Your task to perform on an android device: manage bookmarks in the chrome app Image 0: 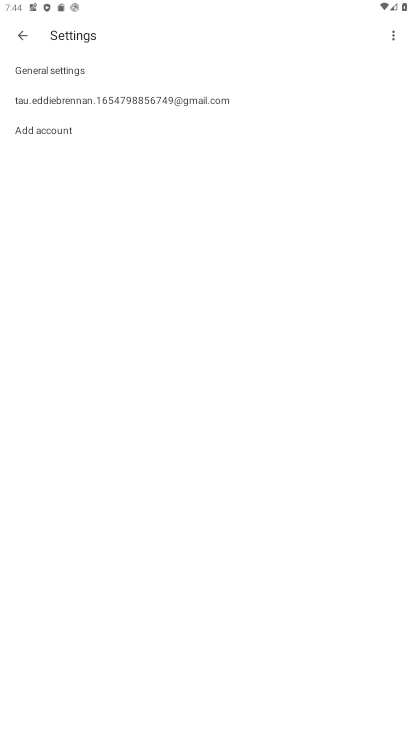
Step 0: press home button
Your task to perform on an android device: manage bookmarks in the chrome app Image 1: 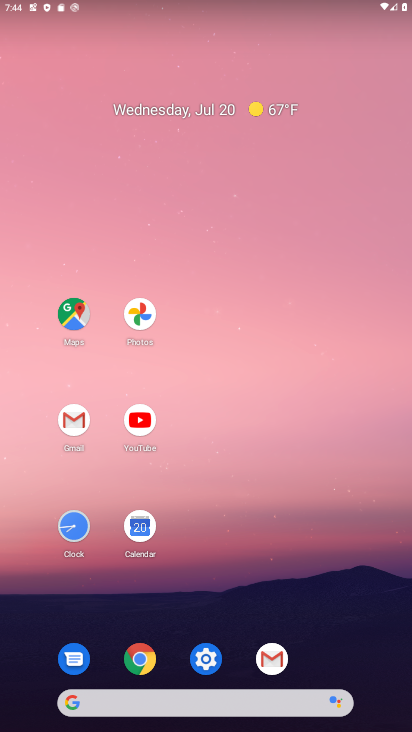
Step 1: click (137, 659)
Your task to perform on an android device: manage bookmarks in the chrome app Image 2: 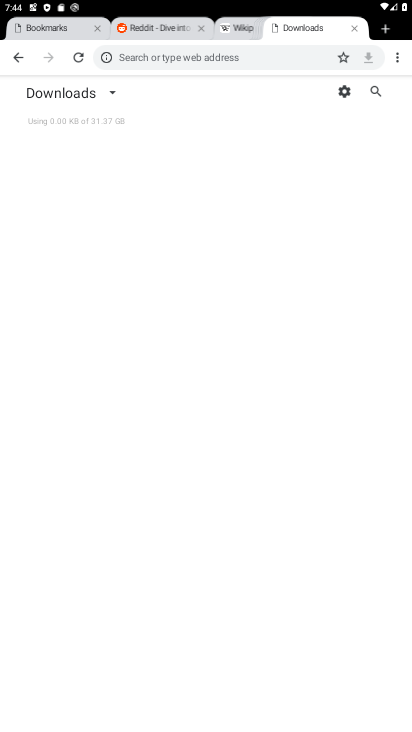
Step 2: click (397, 48)
Your task to perform on an android device: manage bookmarks in the chrome app Image 3: 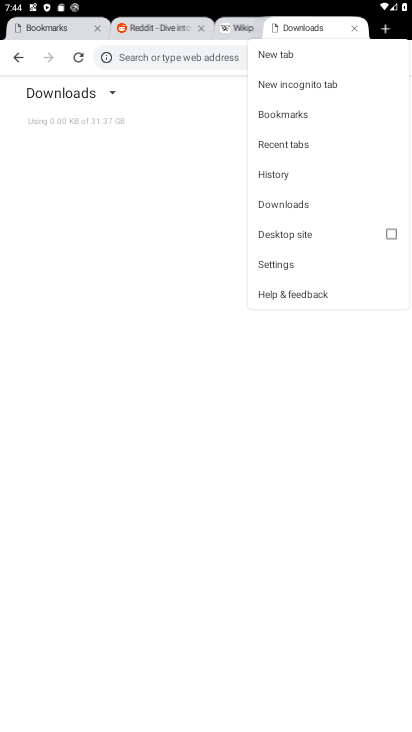
Step 3: click (285, 118)
Your task to perform on an android device: manage bookmarks in the chrome app Image 4: 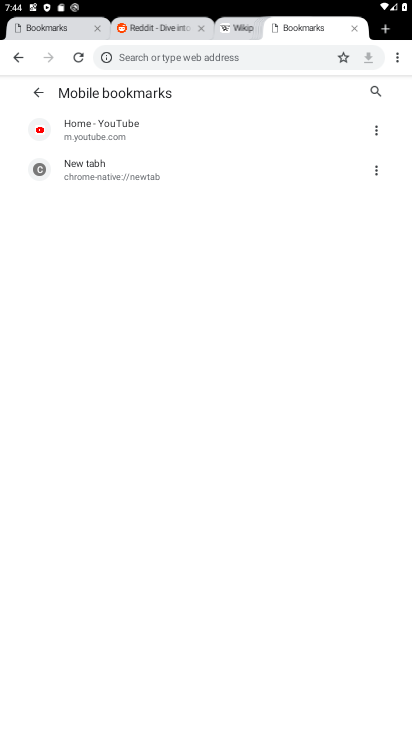
Step 4: click (371, 130)
Your task to perform on an android device: manage bookmarks in the chrome app Image 5: 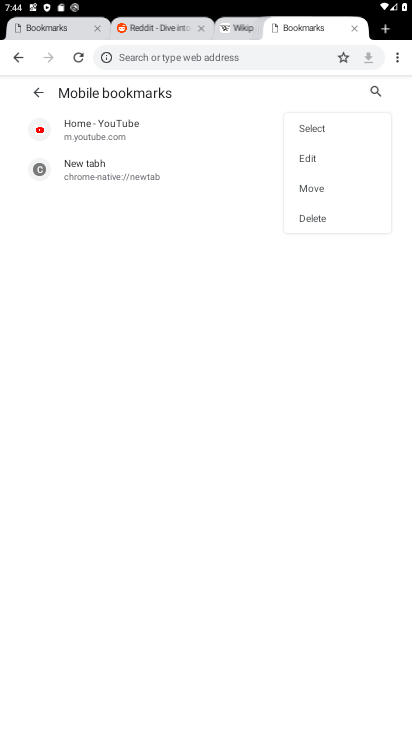
Step 5: click (318, 152)
Your task to perform on an android device: manage bookmarks in the chrome app Image 6: 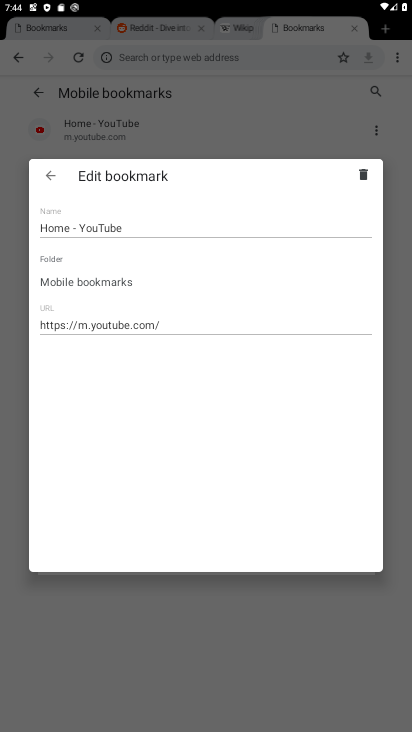
Step 6: task complete